Your task to perform on an android device: Open the calendar app, open the side menu, and click the "Day" option Image 0: 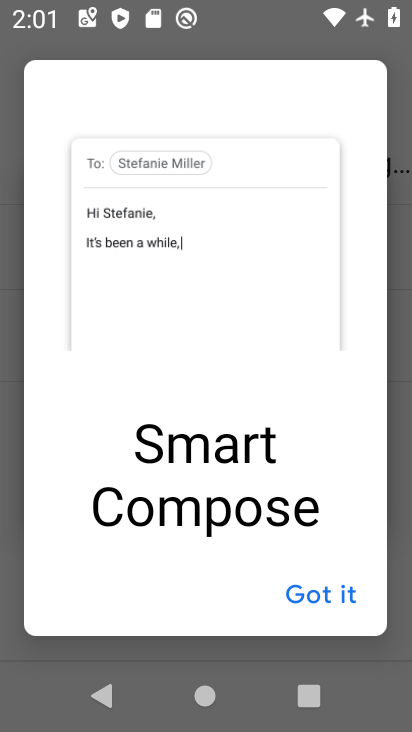
Step 0: press home button
Your task to perform on an android device: Open the calendar app, open the side menu, and click the "Day" option Image 1: 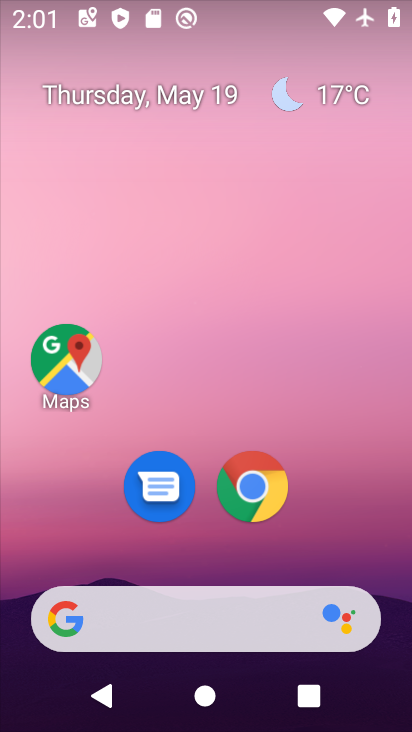
Step 1: click (263, 505)
Your task to perform on an android device: Open the calendar app, open the side menu, and click the "Day" option Image 2: 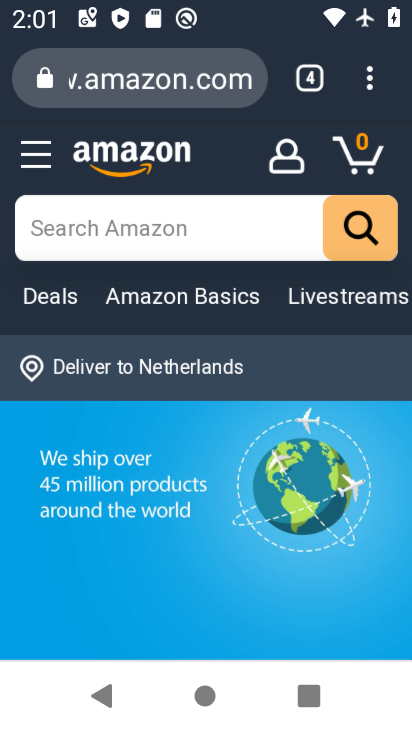
Step 2: press home button
Your task to perform on an android device: Open the calendar app, open the side menu, and click the "Day" option Image 3: 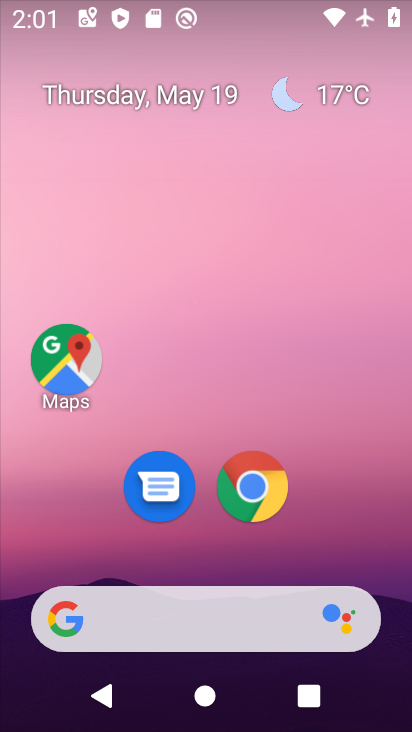
Step 3: drag from (349, 516) to (190, 17)
Your task to perform on an android device: Open the calendar app, open the side menu, and click the "Day" option Image 4: 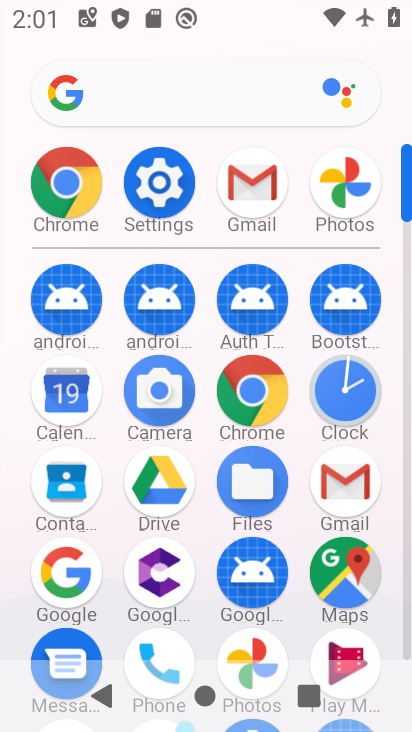
Step 4: click (70, 394)
Your task to perform on an android device: Open the calendar app, open the side menu, and click the "Day" option Image 5: 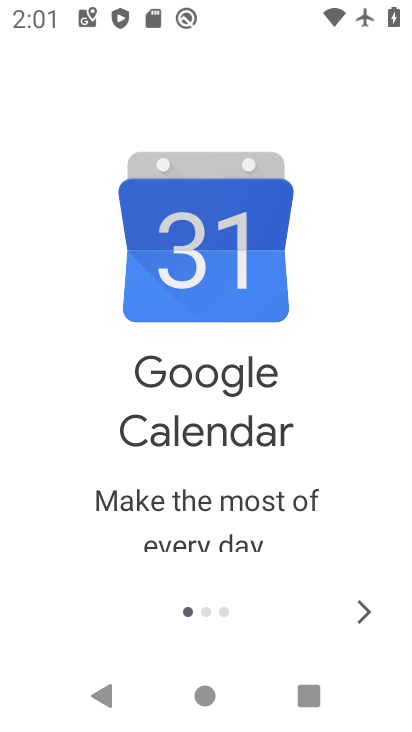
Step 5: click (361, 619)
Your task to perform on an android device: Open the calendar app, open the side menu, and click the "Day" option Image 6: 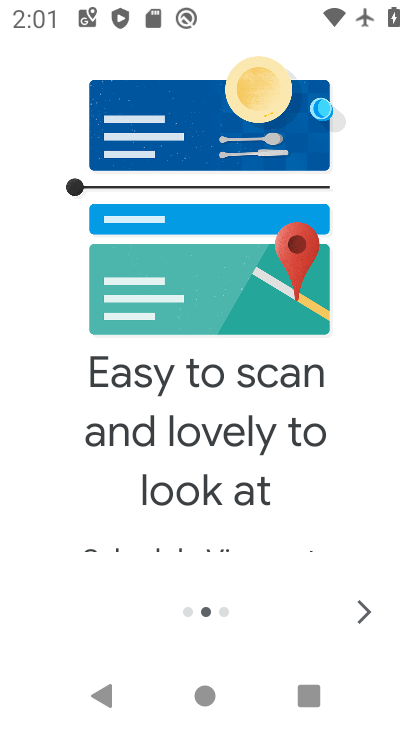
Step 6: click (359, 616)
Your task to perform on an android device: Open the calendar app, open the side menu, and click the "Day" option Image 7: 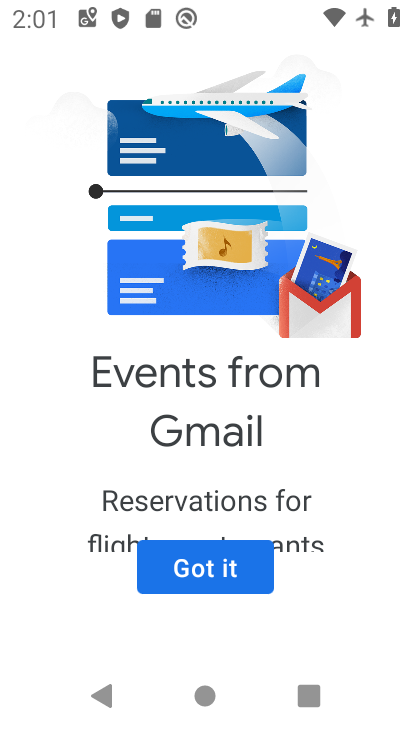
Step 7: click (213, 577)
Your task to perform on an android device: Open the calendar app, open the side menu, and click the "Day" option Image 8: 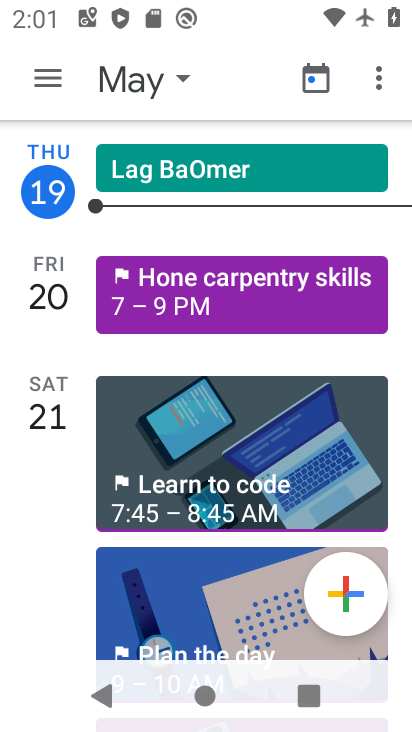
Step 8: click (46, 69)
Your task to perform on an android device: Open the calendar app, open the side menu, and click the "Day" option Image 9: 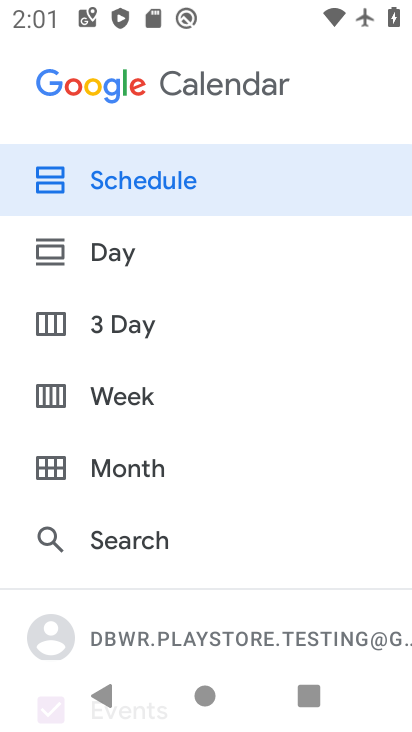
Step 9: click (179, 246)
Your task to perform on an android device: Open the calendar app, open the side menu, and click the "Day" option Image 10: 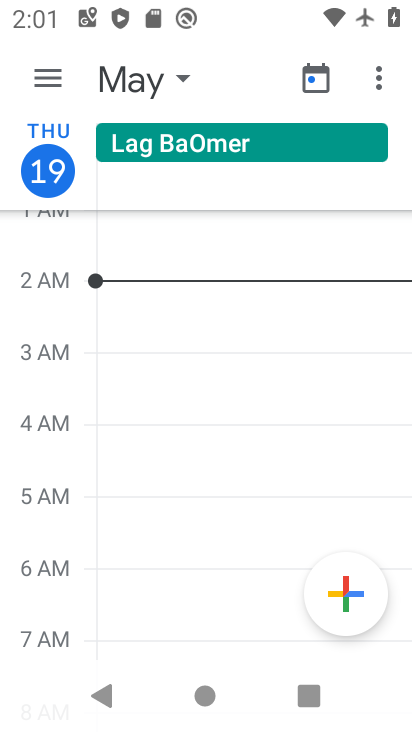
Step 10: task complete